Your task to perform on an android device: find snoozed emails in the gmail app Image 0: 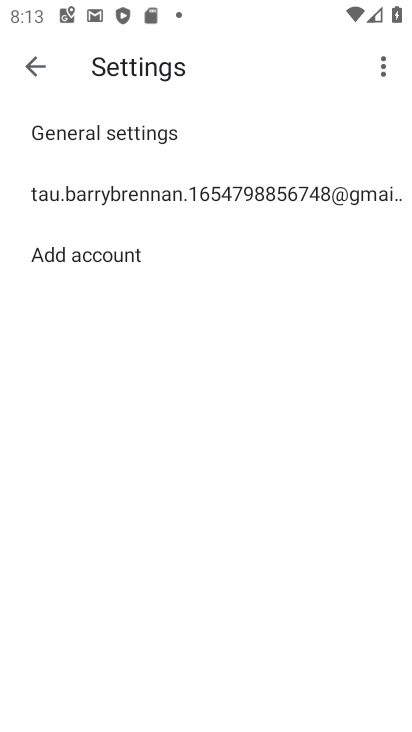
Step 0: click (39, 67)
Your task to perform on an android device: find snoozed emails in the gmail app Image 1: 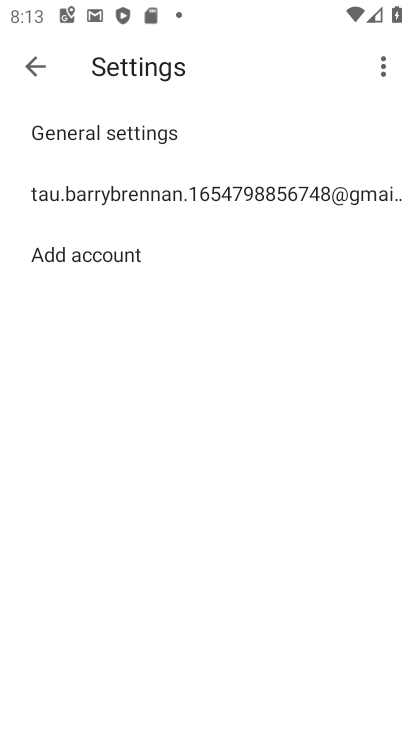
Step 1: click (39, 70)
Your task to perform on an android device: find snoozed emails in the gmail app Image 2: 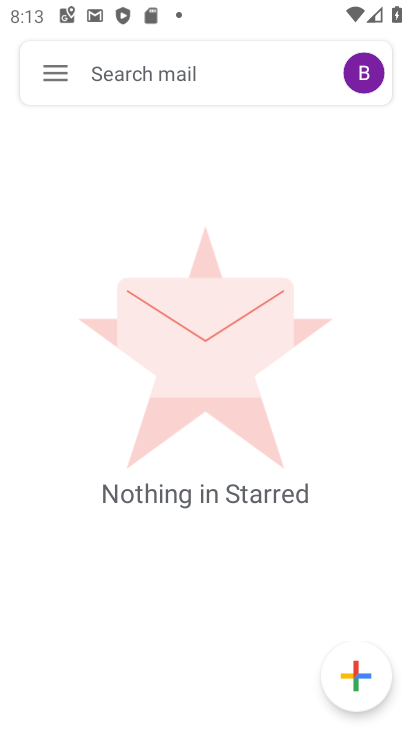
Step 2: task complete